Your task to perform on an android device: Open Chrome and go to the settings page Image 0: 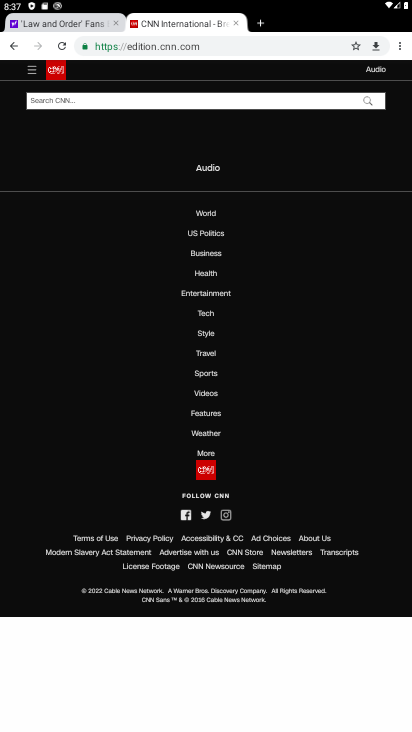
Step 0: click (401, 48)
Your task to perform on an android device: Open Chrome and go to the settings page Image 1: 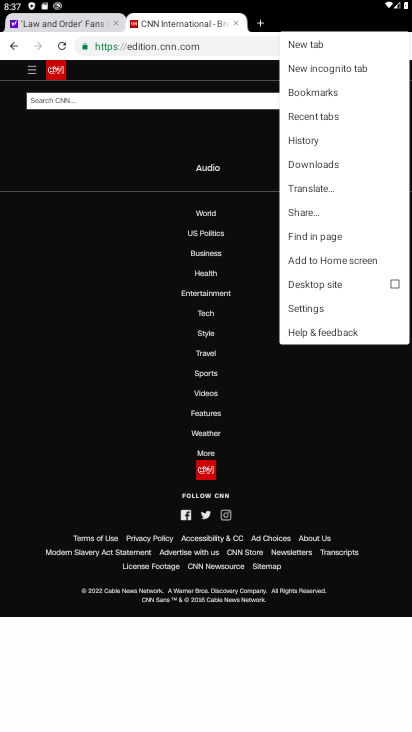
Step 1: click (315, 308)
Your task to perform on an android device: Open Chrome and go to the settings page Image 2: 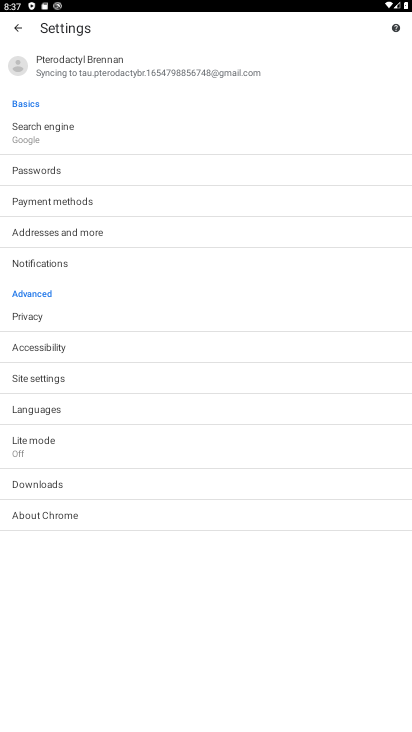
Step 2: task complete